Your task to perform on an android device: Go to Yahoo.com Image 0: 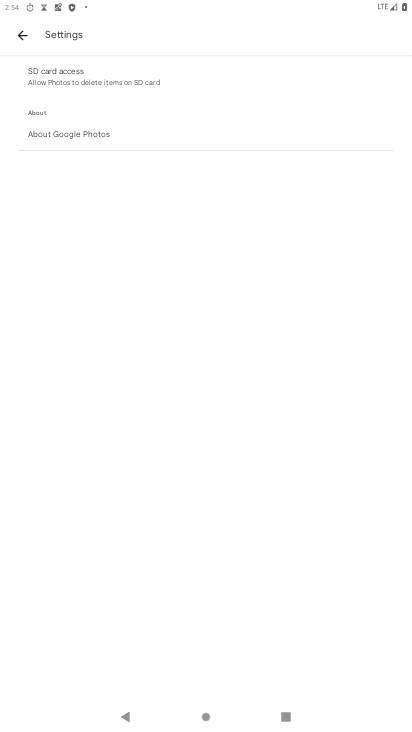
Step 0: press home button
Your task to perform on an android device: Go to Yahoo.com Image 1: 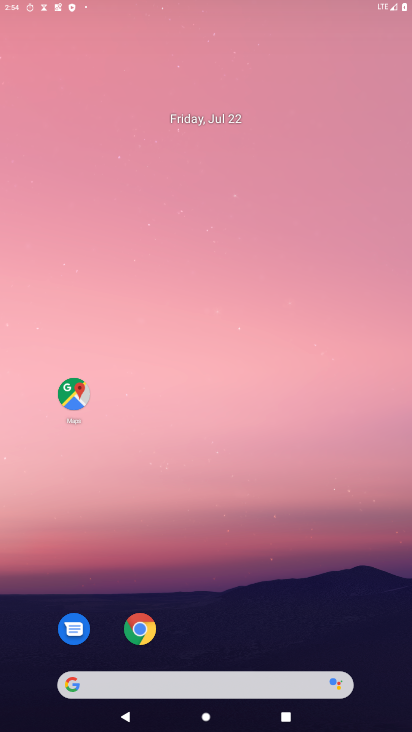
Step 1: drag from (132, 682) to (154, 4)
Your task to perform on an android device: Go to Yahoo.com Image 2: 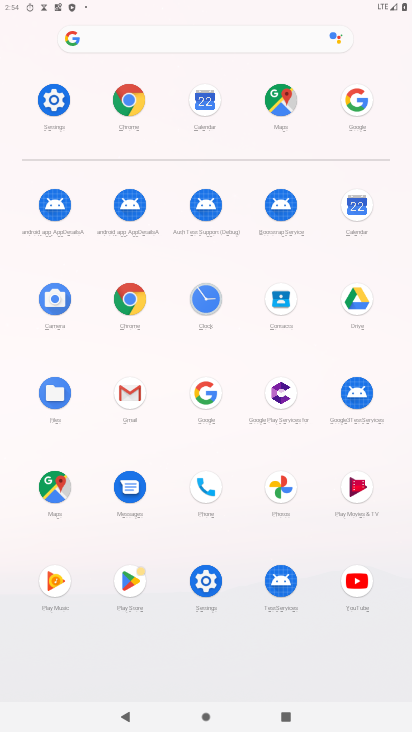
Step 2: click (134, 308)
Your task to perform on an android device: Go to Yahoo.com Image 3: 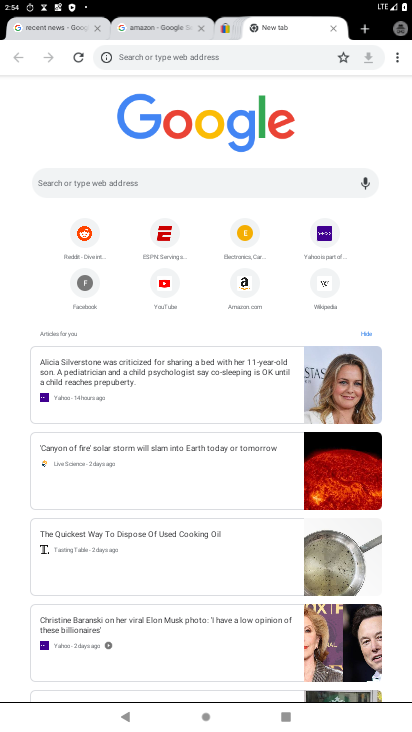
Step 3: click (328, 228)
Your task to perform on an android device: Go to Yahoo.com Image 4: 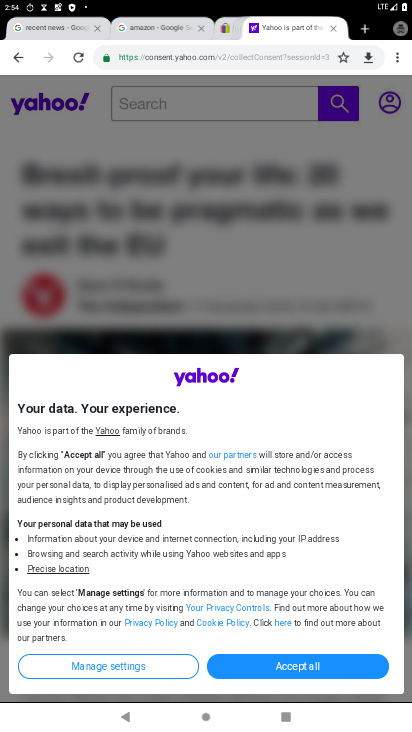
Step 4: task complete